Your task to perform on an android device: turn on priority inbox in the gmail app Image 0: 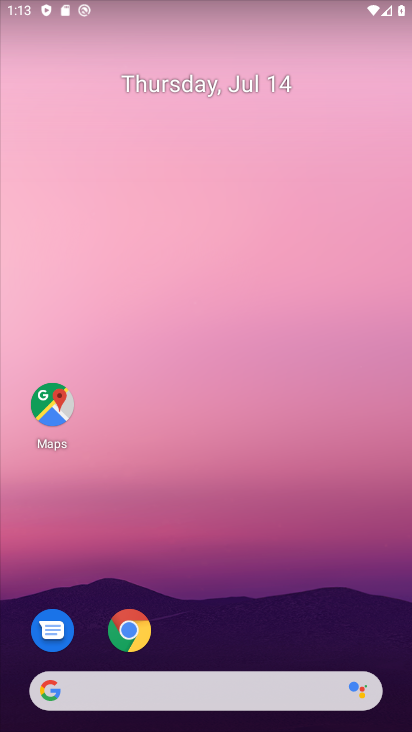
Step 0: drag from (236, 398) to (261, 55)
Your task to perform on an android device: turn on priority inbox in the gmail app Image 1: 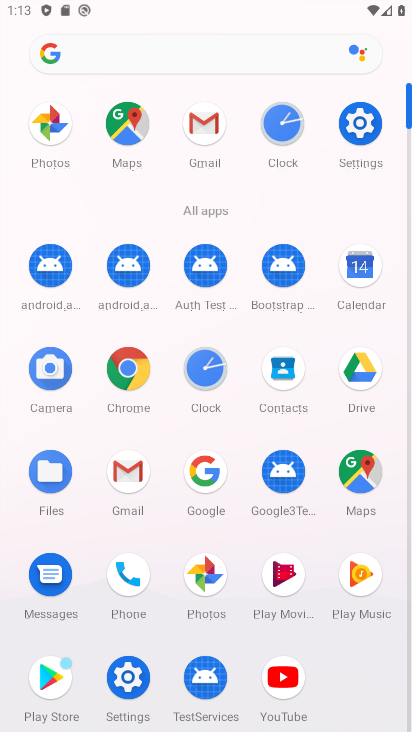
Step 1: click (212, 121)
Your task to perform on an android device: turn on priority inbox in the gmail app Image 2: 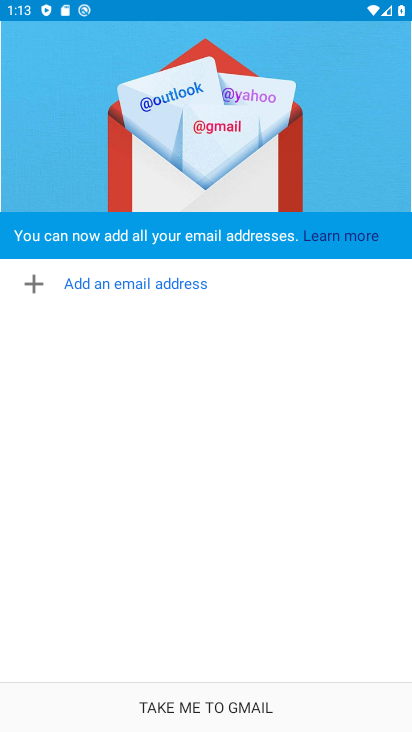
Step 2: click (197, 702)
Your task to perform on an android device: turn on priority inbox in the gmail app Image 3: 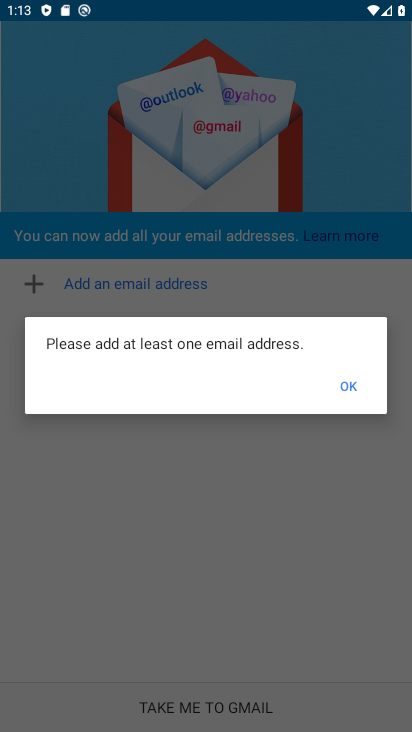
Step 3: click (355, 392)
Your task to perform on an android device: turn on priority inbox in the gmail app Image 4: 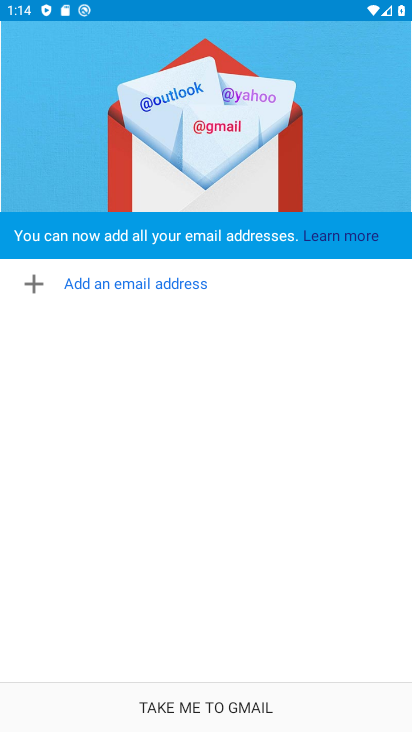
Step 4: task complete